Your task to perform on an android device: find photos in the google photos app Image 0: 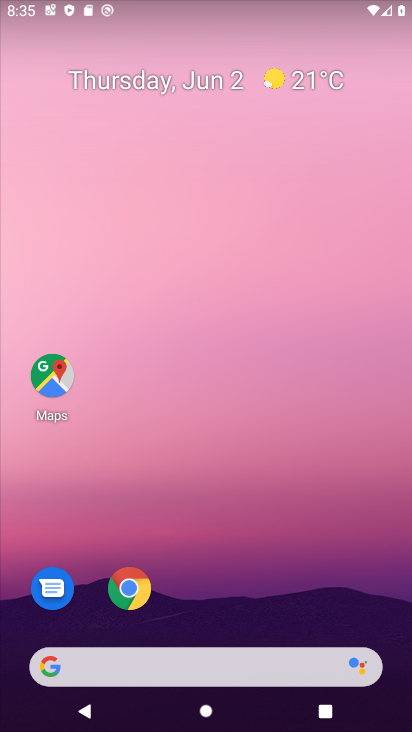
Step 0: drag from (220, 661) to (247, 20)
Your task to perform on an android device: find photos in the google photos app Image 1: 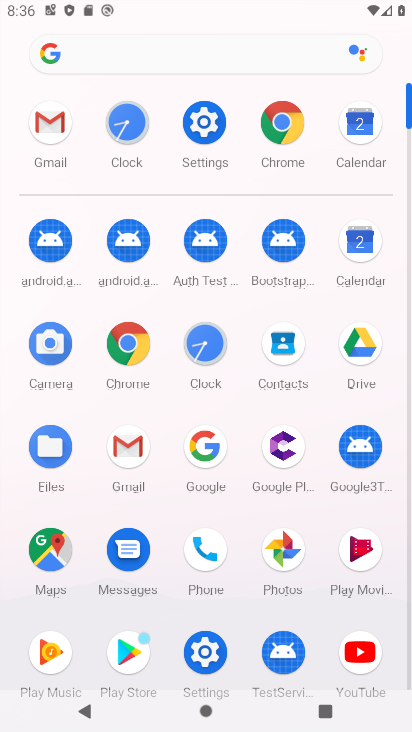
Step 1: click (284, 539)
Your task to perform on an android device: find photos in the google photos app Image 2: 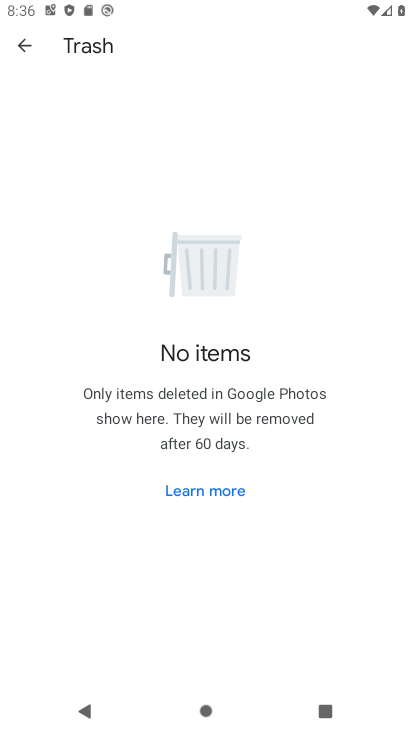
Step 2: click (28, 48)
Your task to perform on an android device: find photos in the google photos app Image 3: 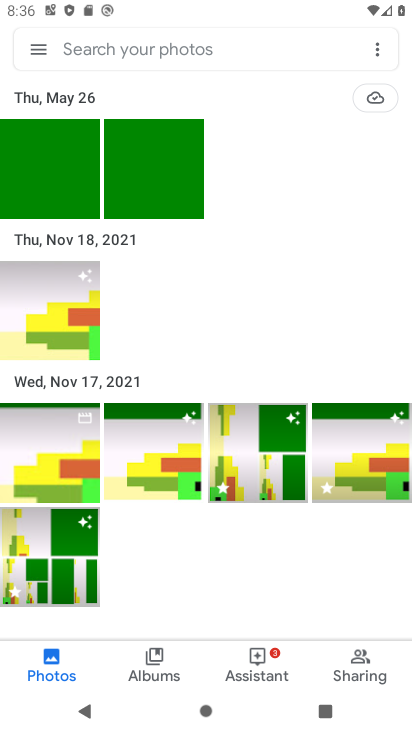
Step 3: task complete